Your task to perform on an android device: Check the news Image 0: 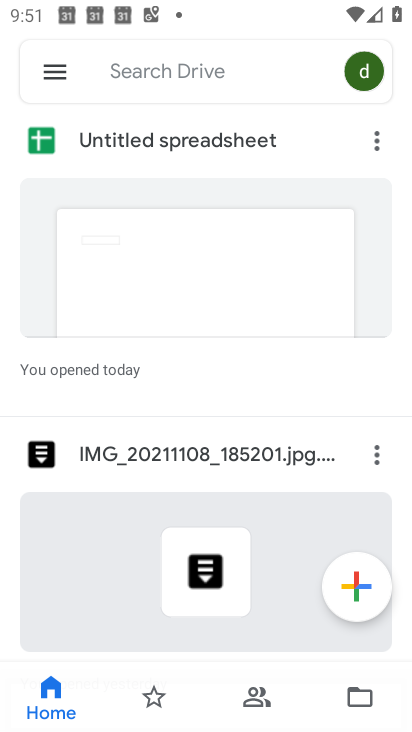
Step 0: press home button
Your task to perform on an android device: Check the news Image 1: 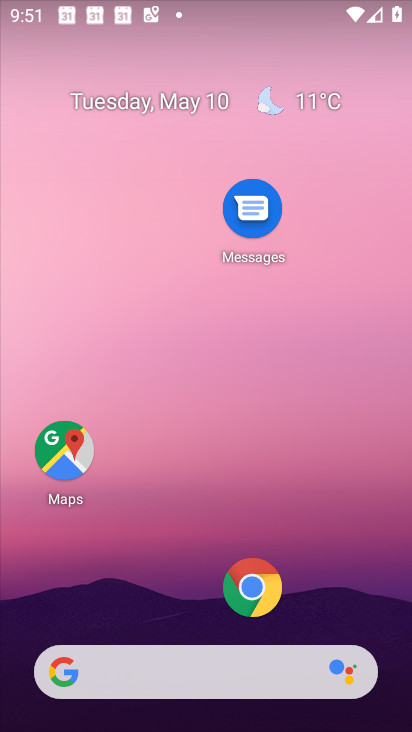
Step 1: click (168, 689)
Your task to perform on an android device: Check the news Image 2: 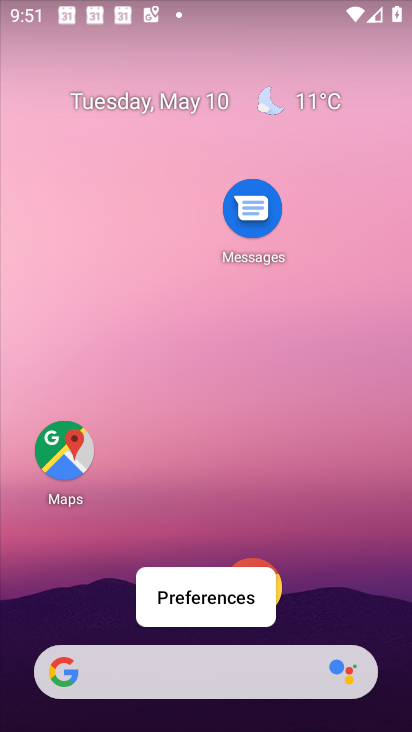
Step 2: click (166, 656)
Your task to perform on an android device: Check the news Image 3: 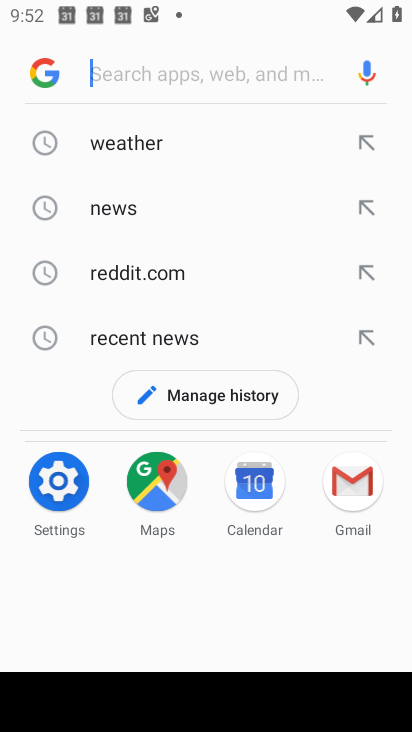
Step 3: click (147, 210)
Your task to perform on an android device: Check the news Image 4: 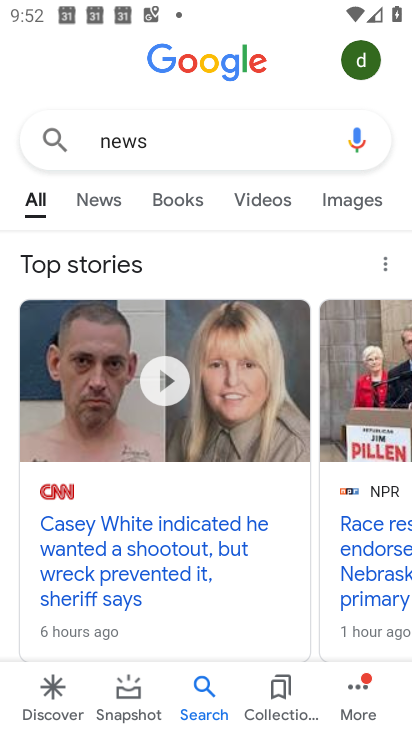
Step 4: task complete